Your task to perform on an android device: add a label to a message in the gmail app Image 0: 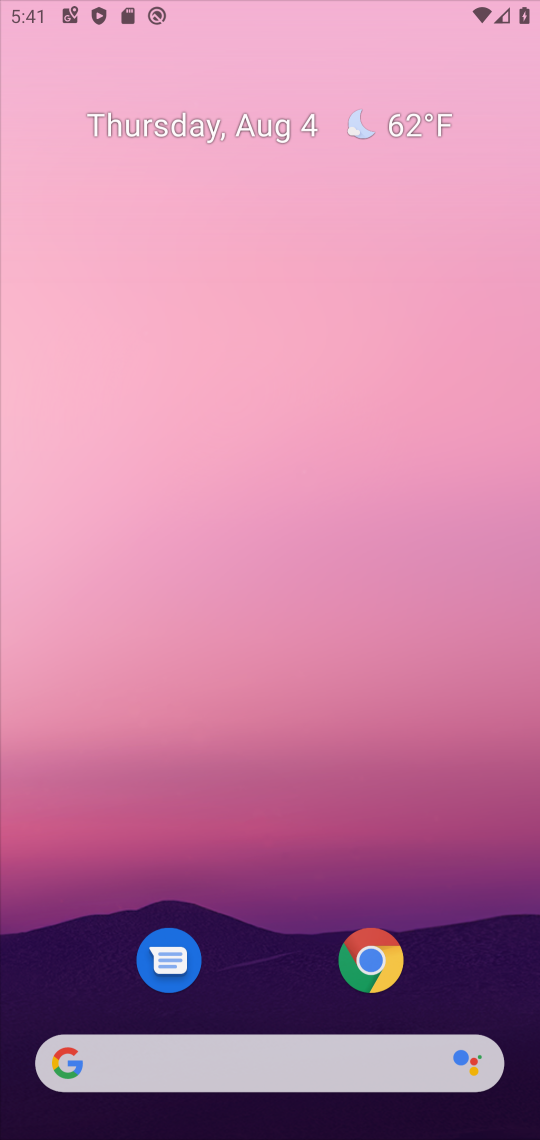
Step 0: press home button
Your task to perform on an android device: add a label to a message in the gmail app Image 1: 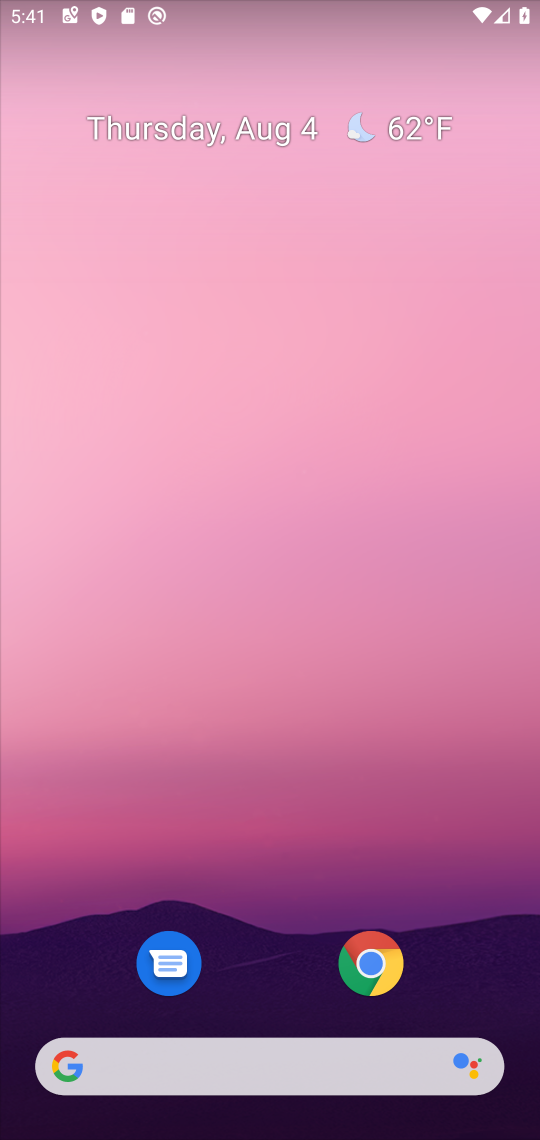
Step 1: drag from (258, 920) to (315, 63)
Your task to perform on an android device: add a label to a message in the gmail app Image 2: 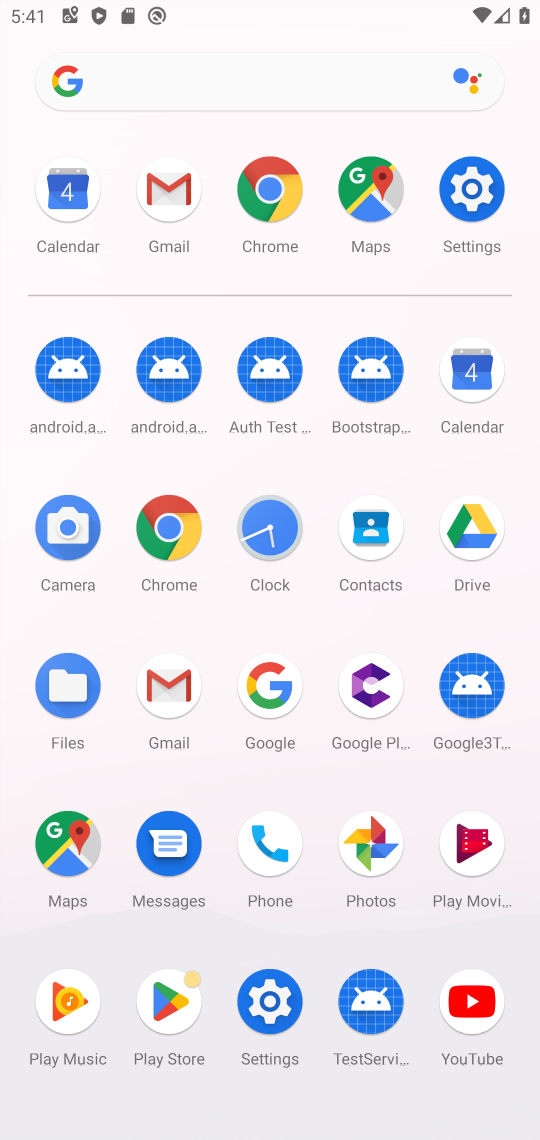
Step 2: click (167, 690)
Your task to perform on an android device: add a label to a message in the gmail app Image 3: 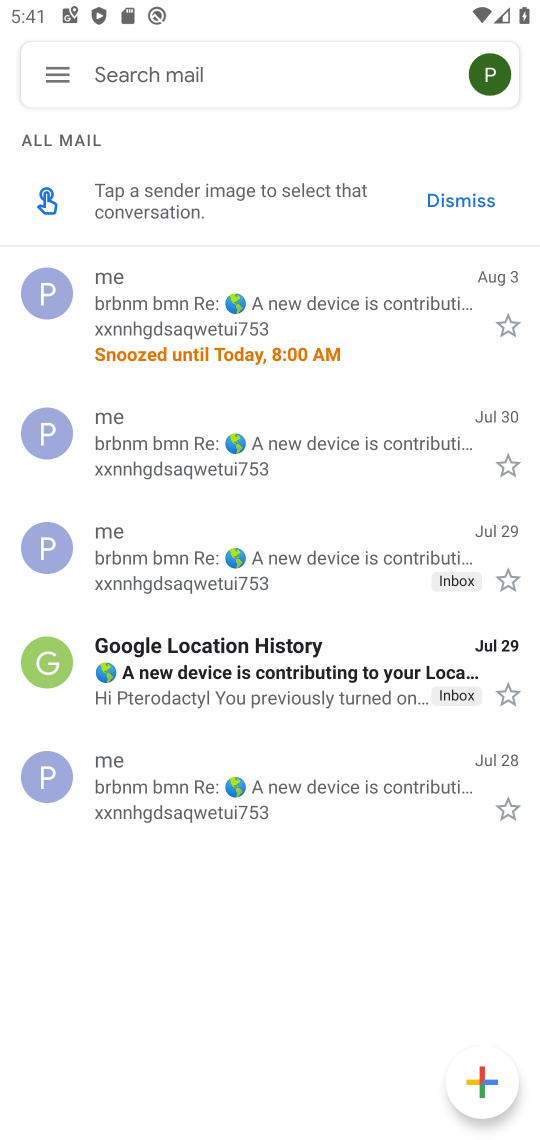
Step 3: click (283, 298)
Your task to perform on an android device: add a label to a message in the gmail app Image 4: 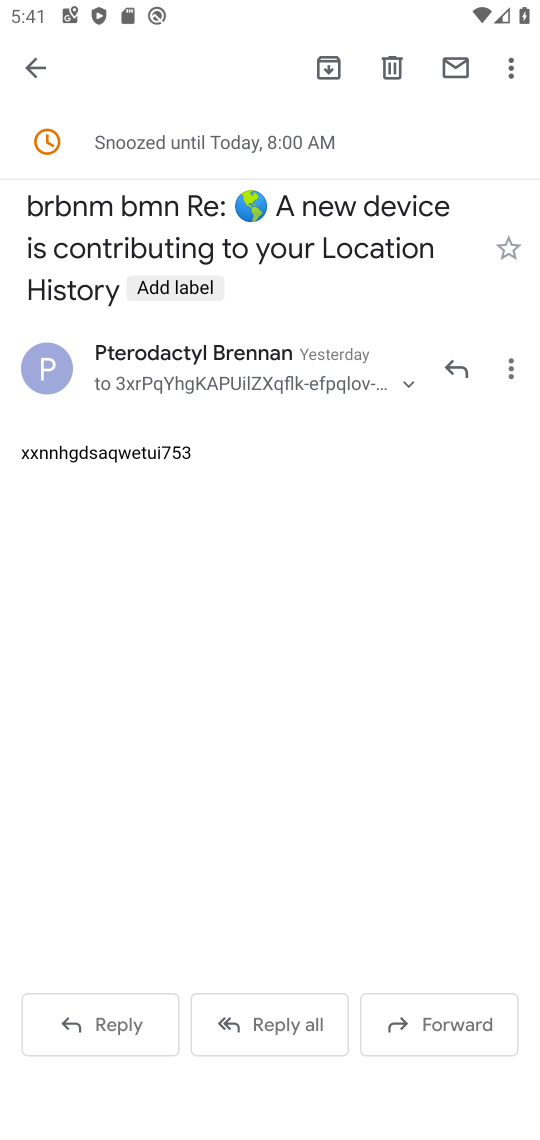
Step 4: click (508, 71)
Your task to perform on an android device: add a label to a message in the gmail app Image 5: 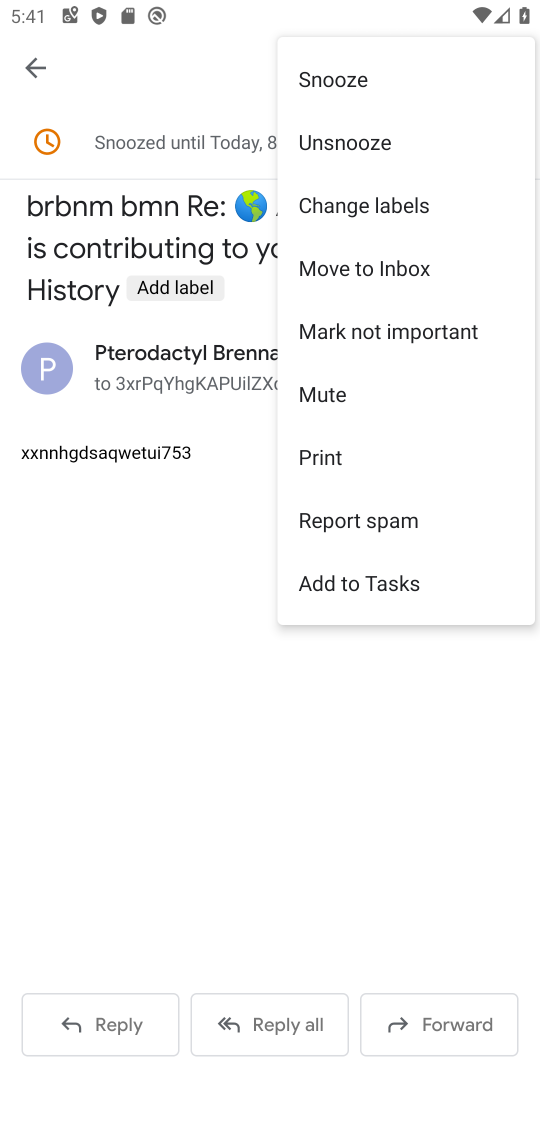
Step 5: click (365, 195)
Your task to perform on an android device: add a label to a message in the gmail app Image 6: 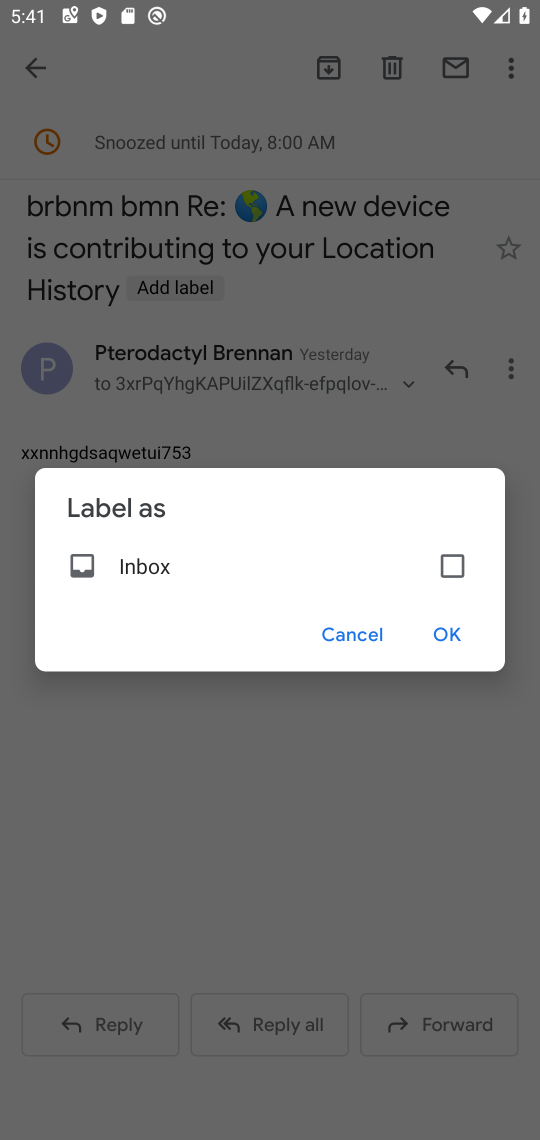
Step 6: click (460, 567)
Your task to perform on an android device: add a label to a message in the gmail app Image 7: 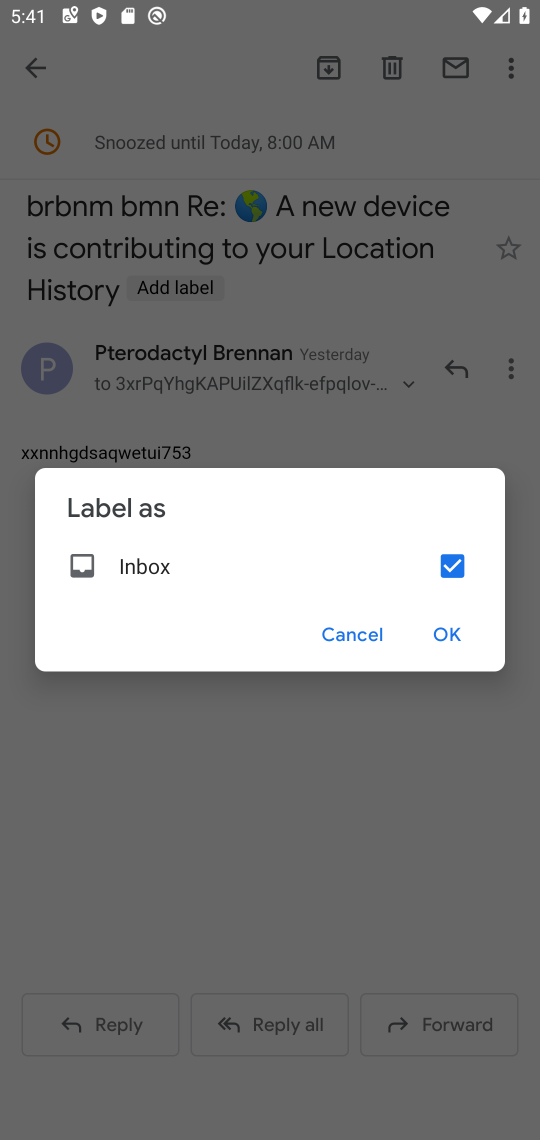
Step 7: click (439, 634)
Your task to perform on an android device: add a label to a message in the gmail app Image 8: 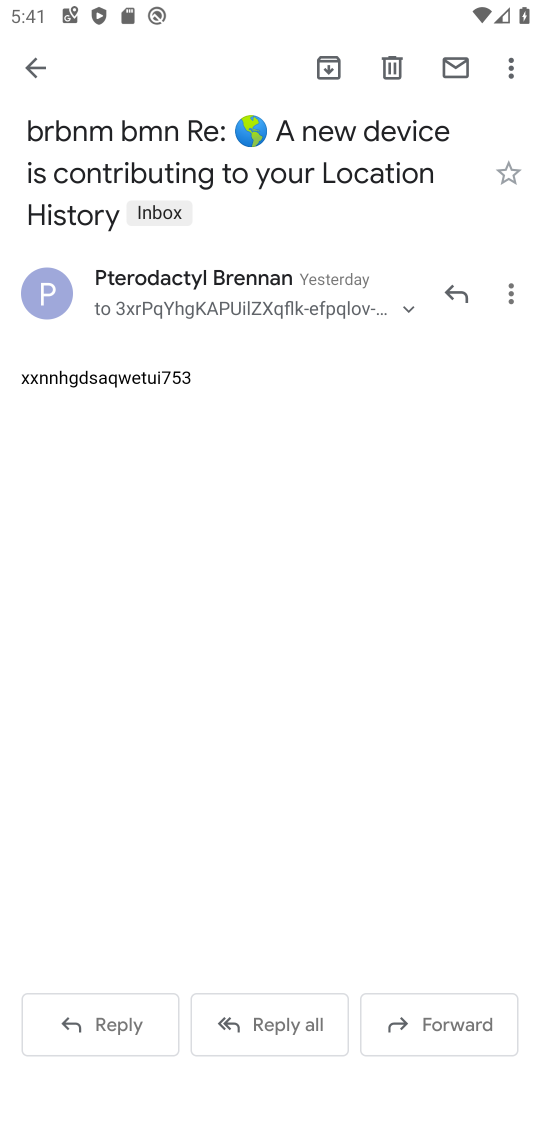
Step 8: task complete